Your task to perform on an android device: Show the shopping cart on walmart.com. Image 0: 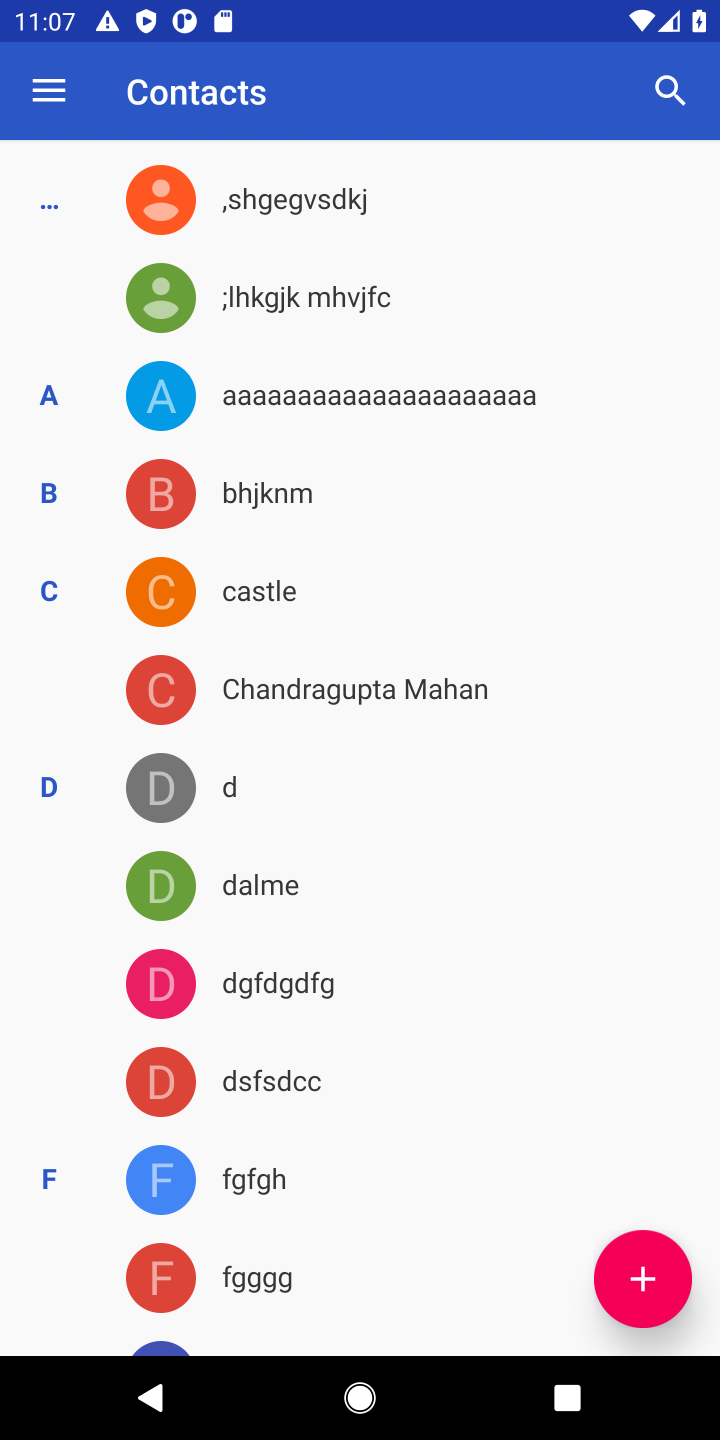
Step 0: press home button
Your task to perform on an android device: Show the shopping cart on walmart.com. Image 1: 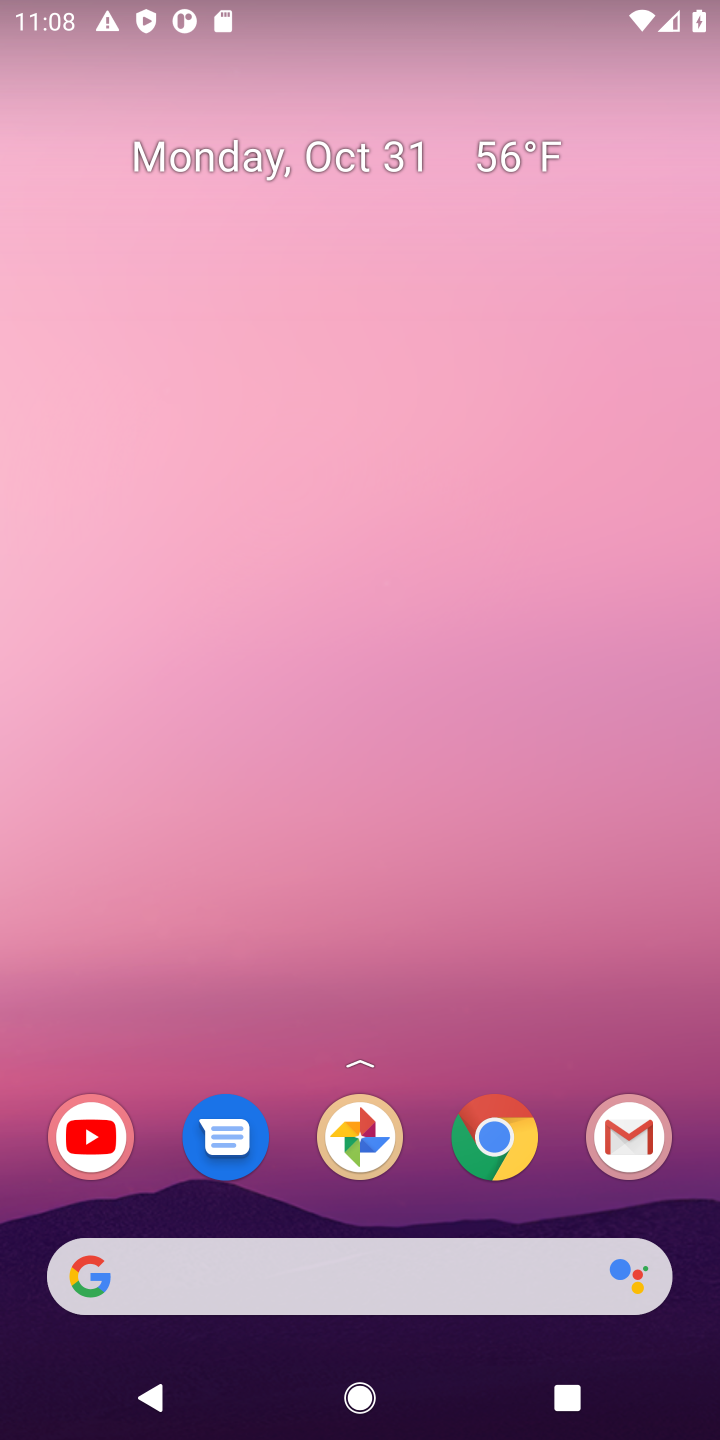
Step 1: click (495, 1139)
Your task to perform on an android device: Show the shopping cart on walmart.com. Image 2: 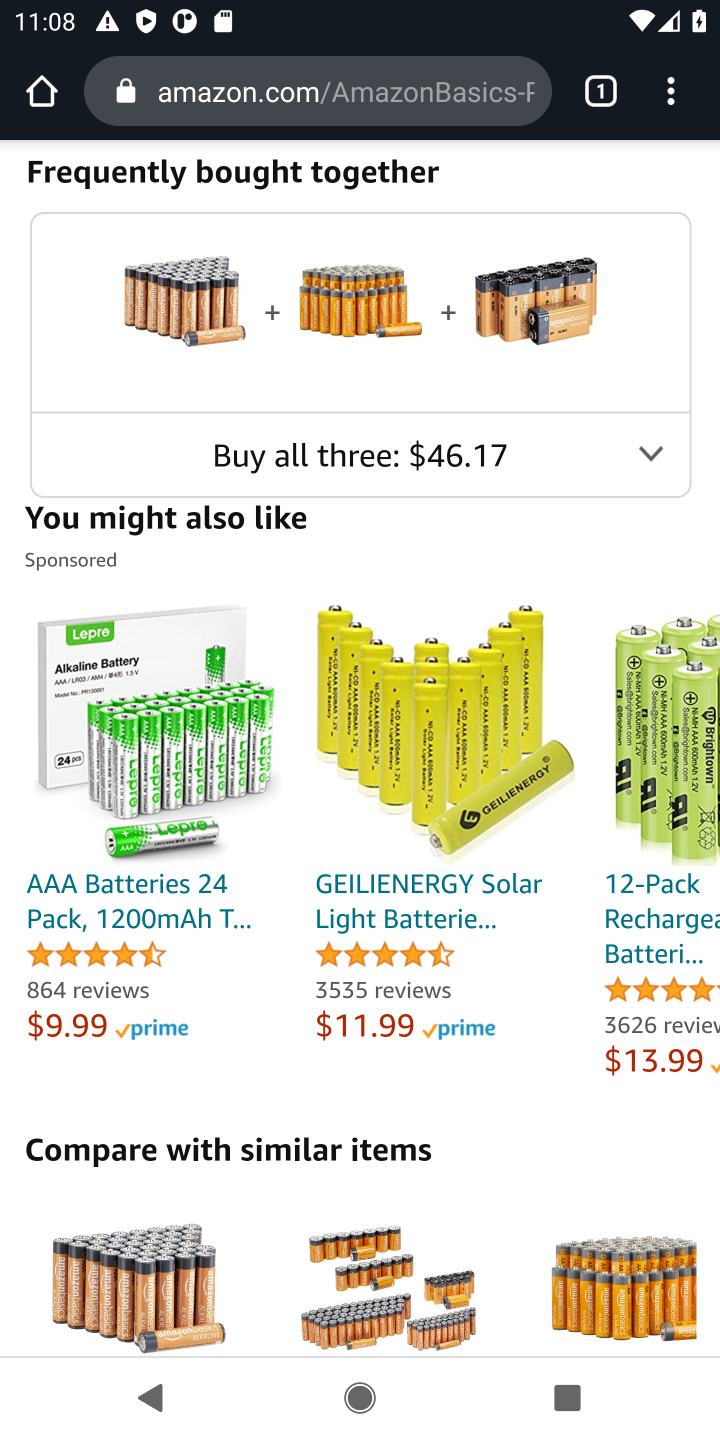
Step 2: click (414, 97)
Your task to perform on an android device: Show the shopping cart on walmart.com. Image 3: 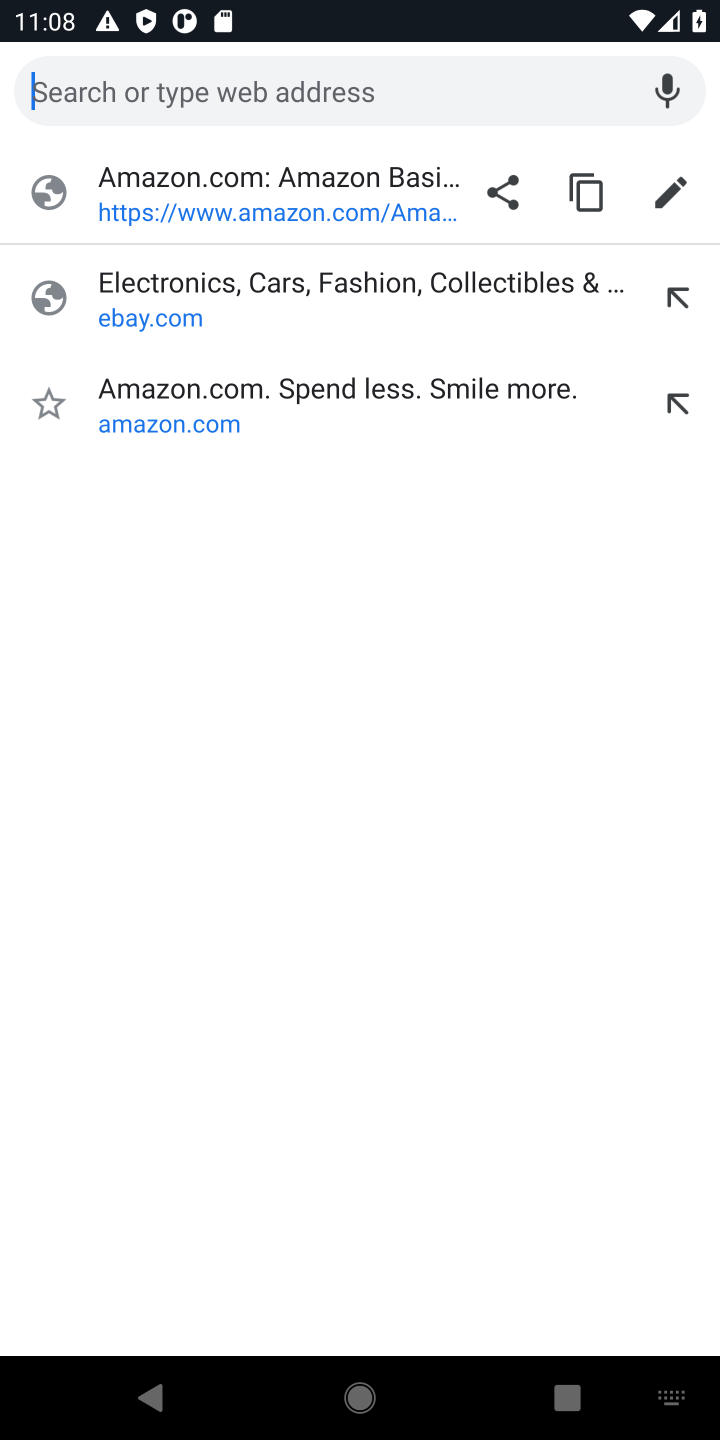
Step 3: type "walmart.com"
Your task to perform on an android device: Show the shopping cart on walmart.com. Image 4: 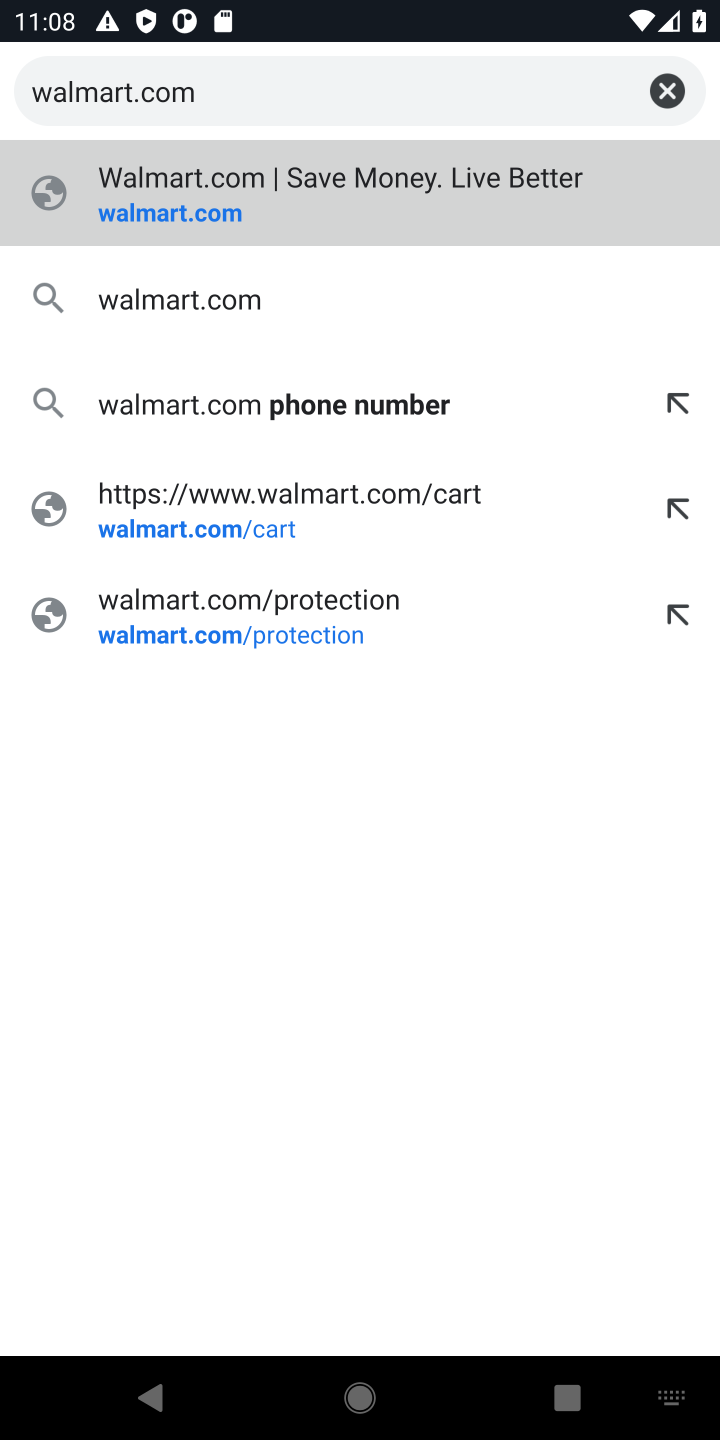
Step 4: click (235, 297)
Your task to perform on an android device: Show the shopping cart on walmart.com. Image 5: 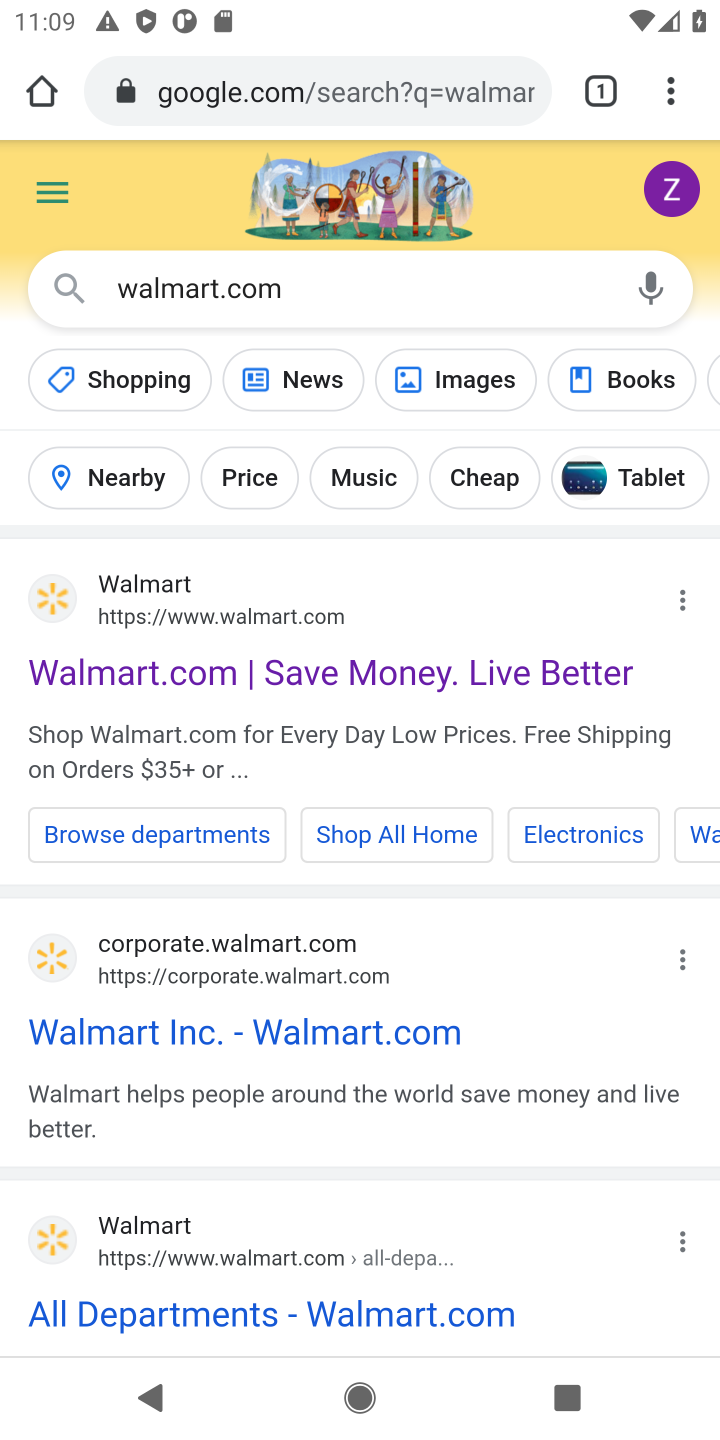
Step 5: click (232, 675)
Your task to perform on an android device: Show the shopping cart on walmart.com. Image 6: 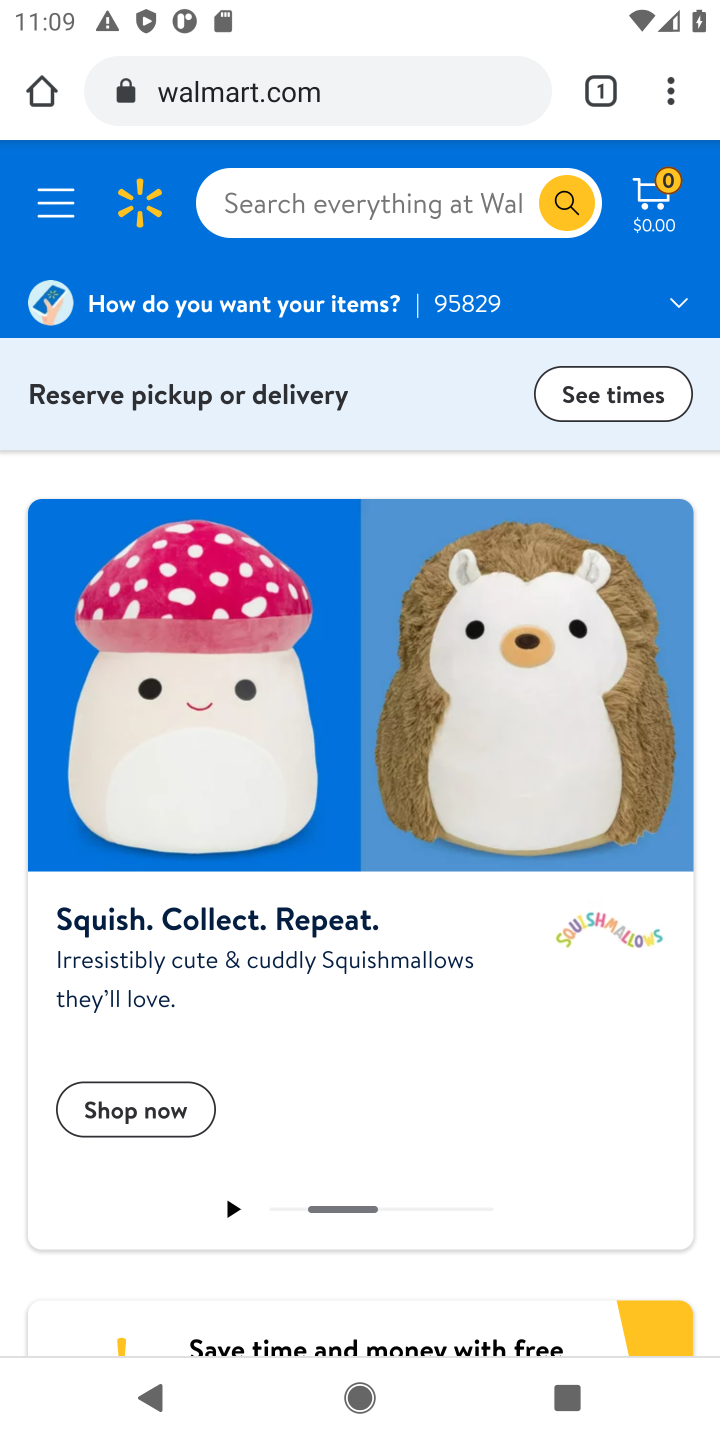
Step 6: click (658, 199)
Your task to perform on an android device: Show the shopping cart on walmart.com. Image 7: 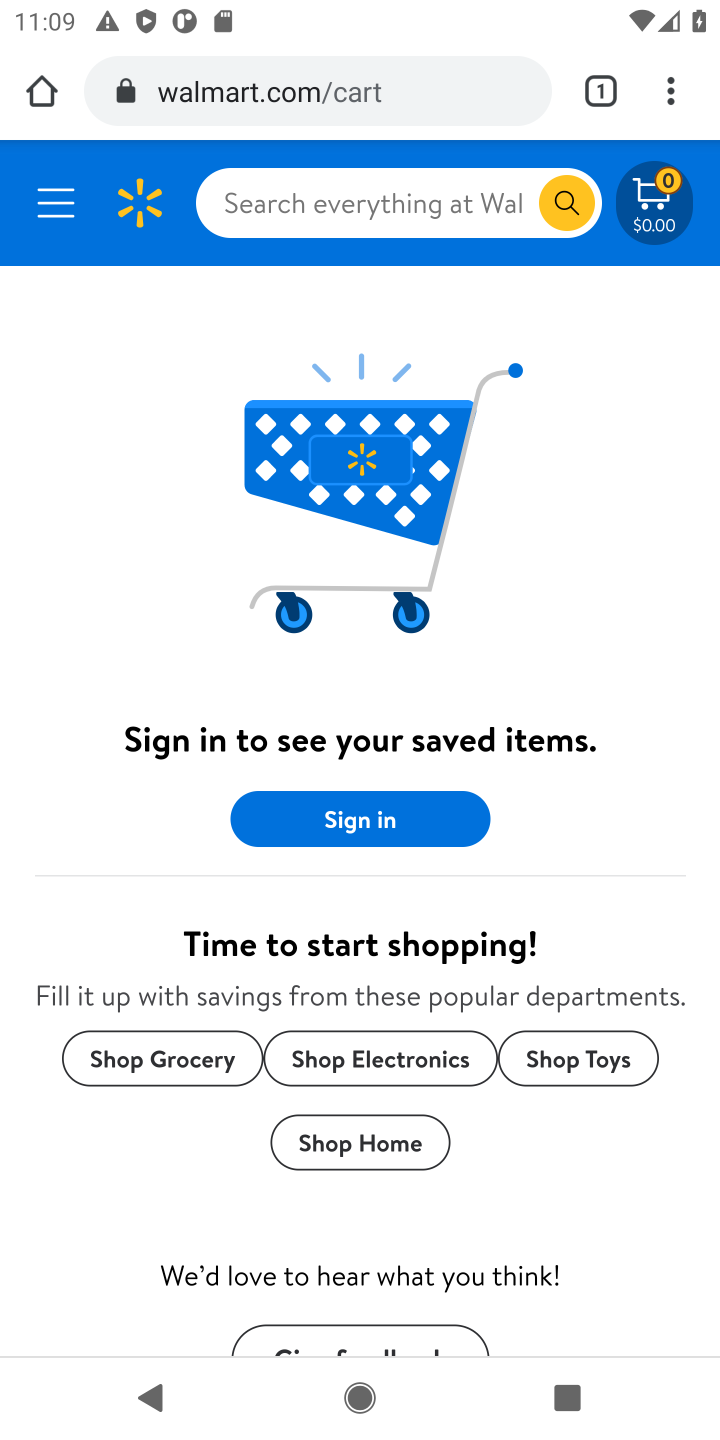
Step 7: task complete